Your task to perform on an android device: check android version Image 0: 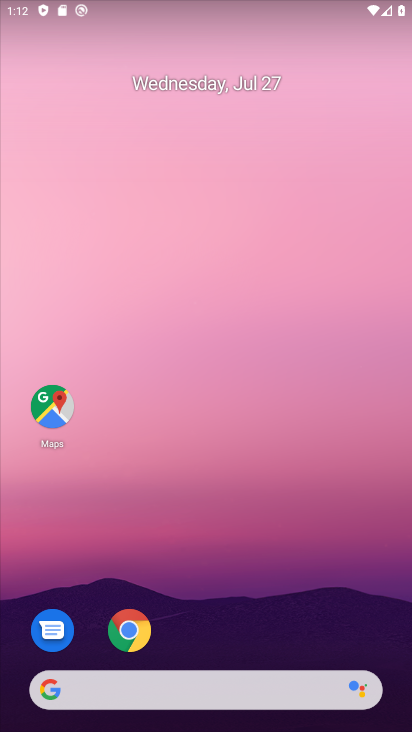
Step 0: drag from (384, 639) to (329, 139)
Your task to perform on an android device: check android version Image 1: 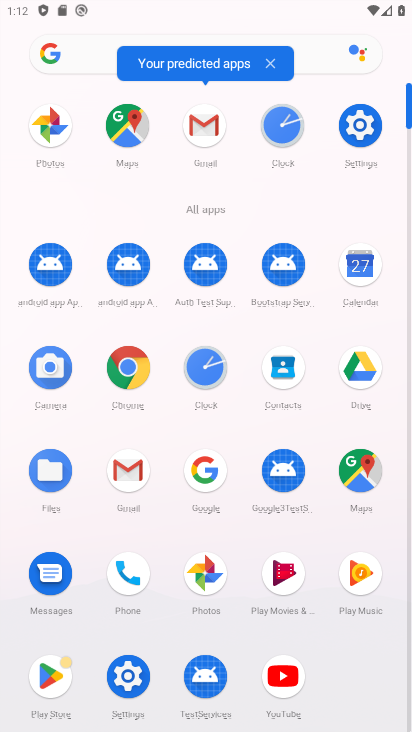
Step 1: click (129, 681)
Your task to perform on an android device: check android version Image 2: 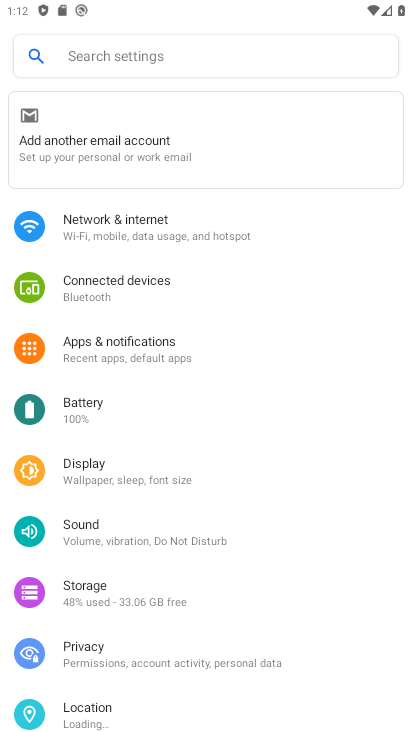
Step 2: drag from (292, 663) to (290, 294)
Your task to perform on an android device: check android version Image 3: 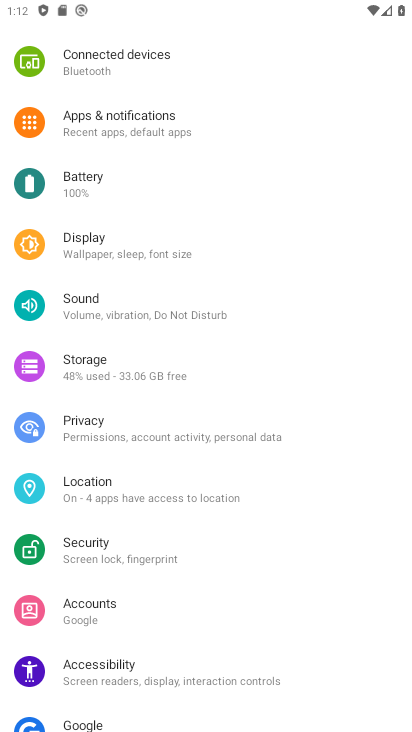
Step 3: drag from (290, 672) to (291, 254)
Your task to perform on an android device: check android version Image 4: 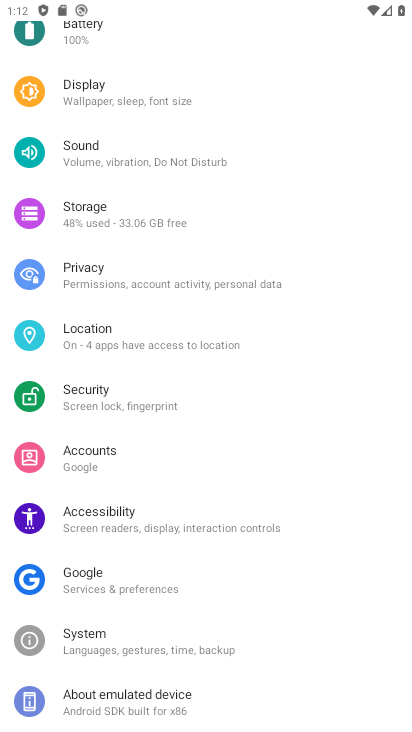
Step 4: click (111, 703)
Your task to perform on an android device: check android version Image 5: 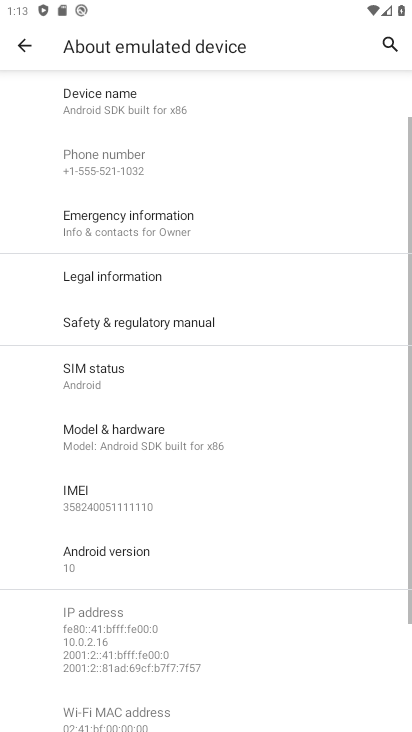
Step 5: click (129, 546)
Your task to perform on an android device: check android version Image 6: 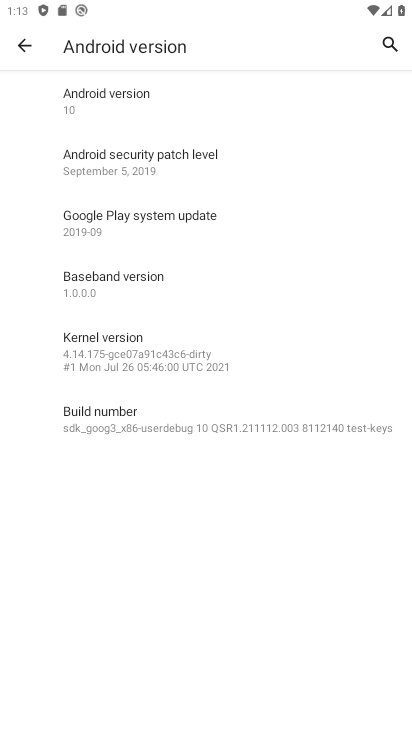
Step 6: click (101, 87)
Your task to perform on an android device: check android version Image 7: 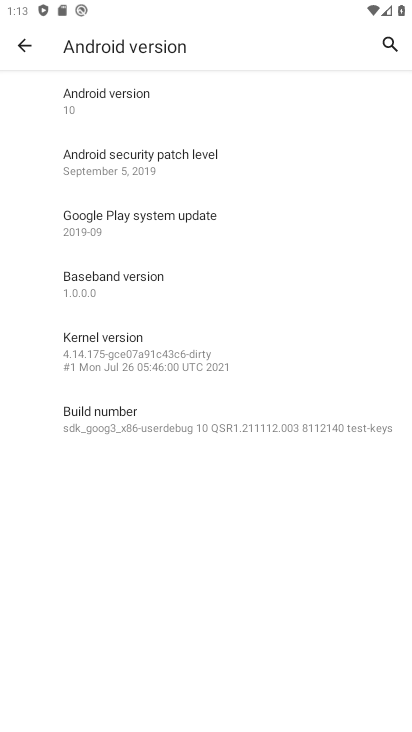
Step 7: task complete